Your task to perform on an android device: install app "Instagram" Image 0: 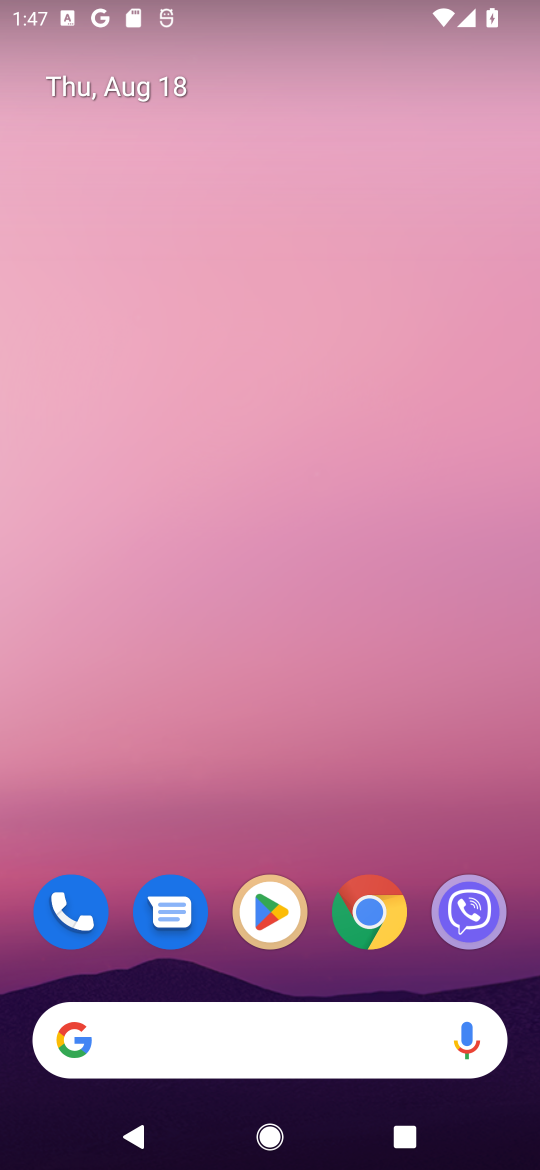
Step 0: click (280, 929)
Your task to perform on an android device: install app "Instagram" Image 1: 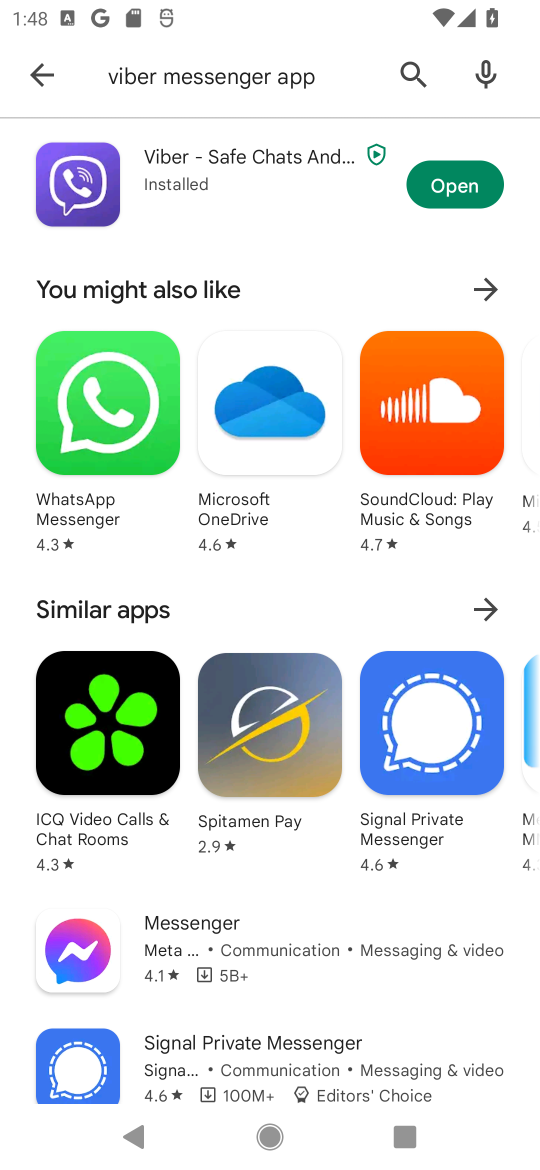
Step 1: click (403, 66)
Your task to perform on an android device: install app "Instagram" Image 2: 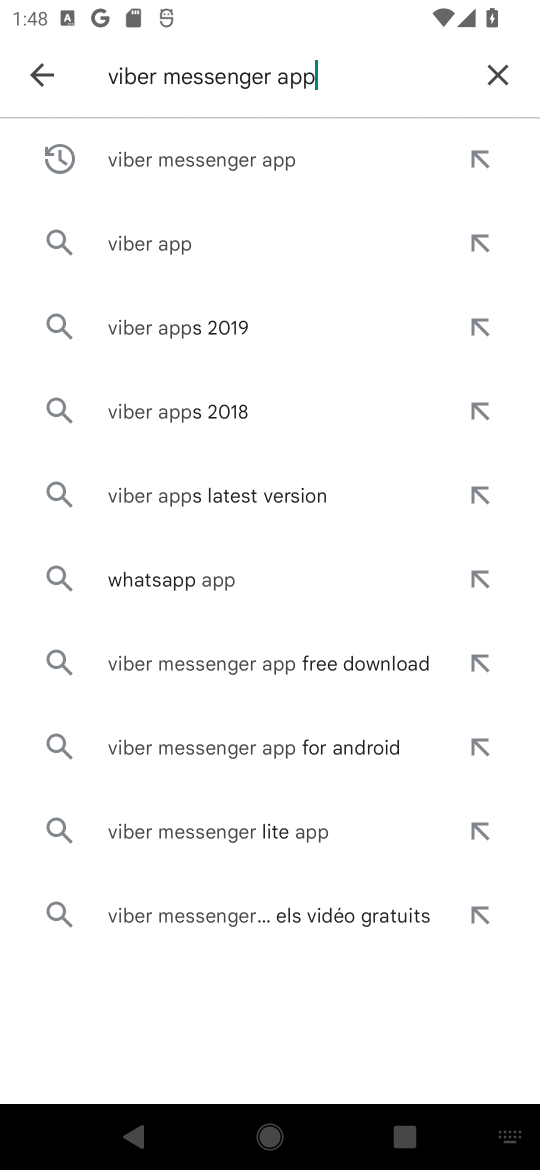
Step 2: click (497, 74)
Your task to perform on an android device: install app "Instagram" Image 3: 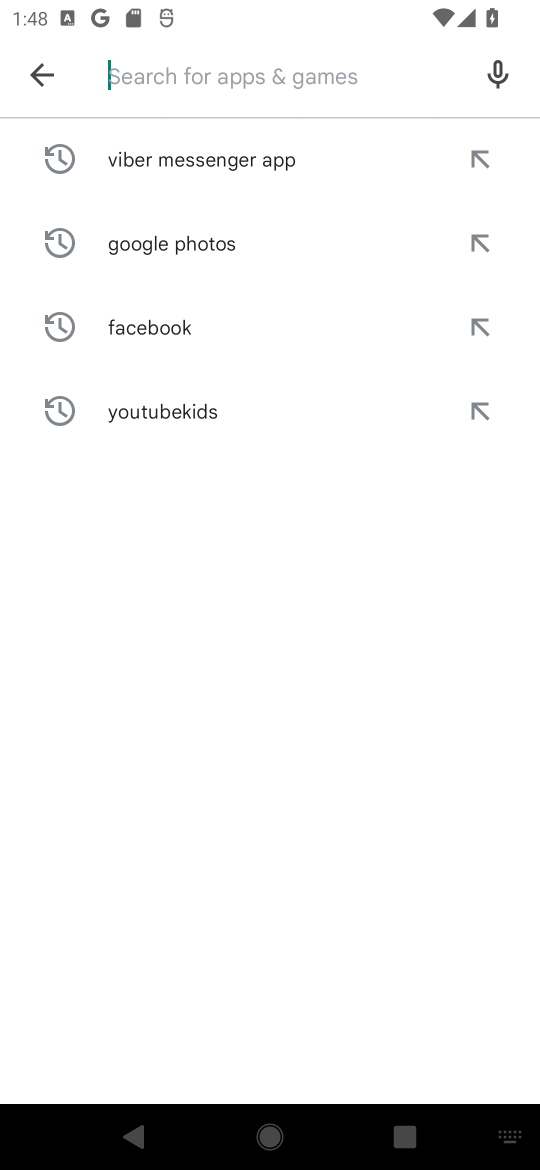
Step 3: click (238, 73)
Your task to perform on an android device: install app "Instagram" Image 4: 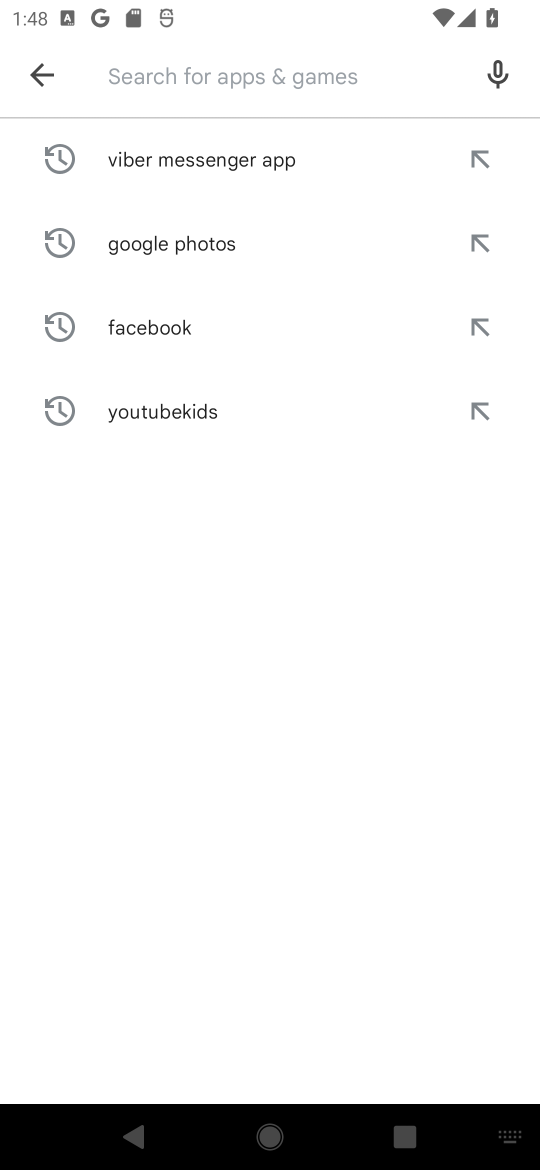
Step 4: type "Instagram"
Your task to perform on an android device: install app "Instagram" Image 5: 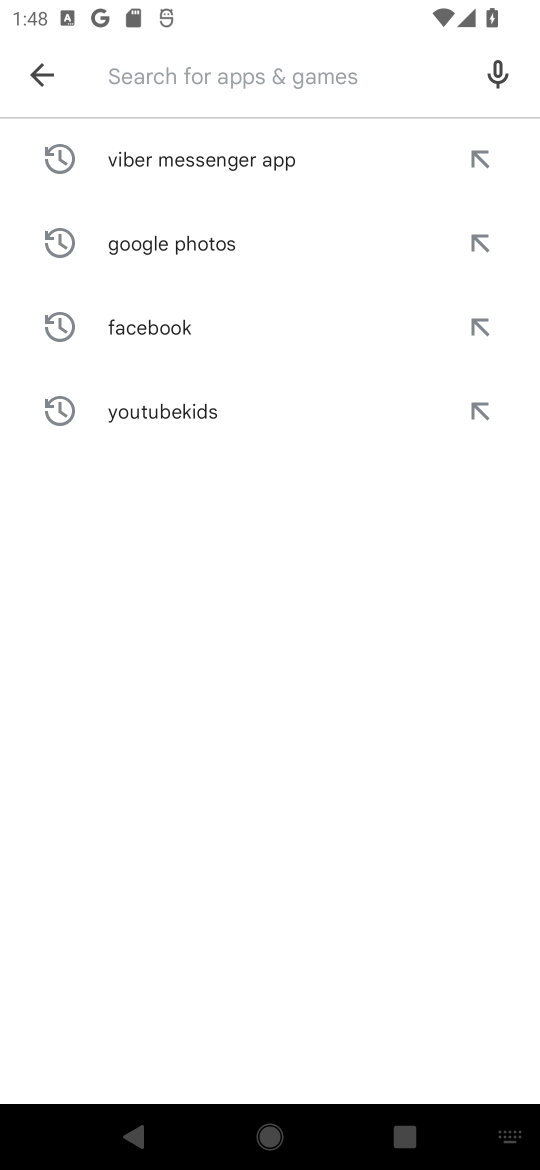
Step 5: click (322, 728)
Your task to perform on an android device: install app "Instagram" Image 6: 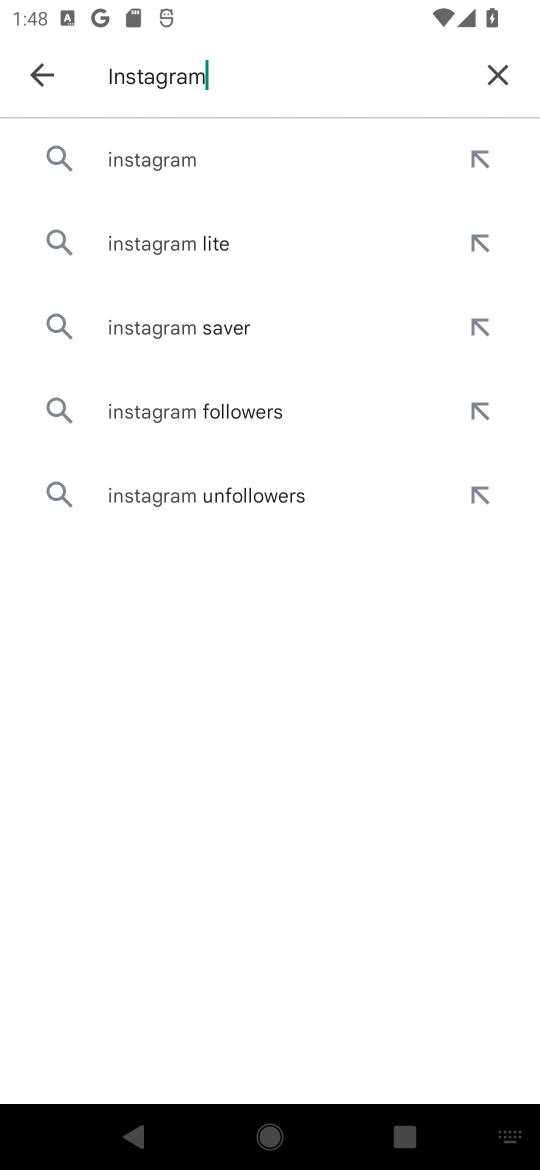
Step 6: click (186, 143)
Your task to perform on an android device: install app "Instagram" Image 7: 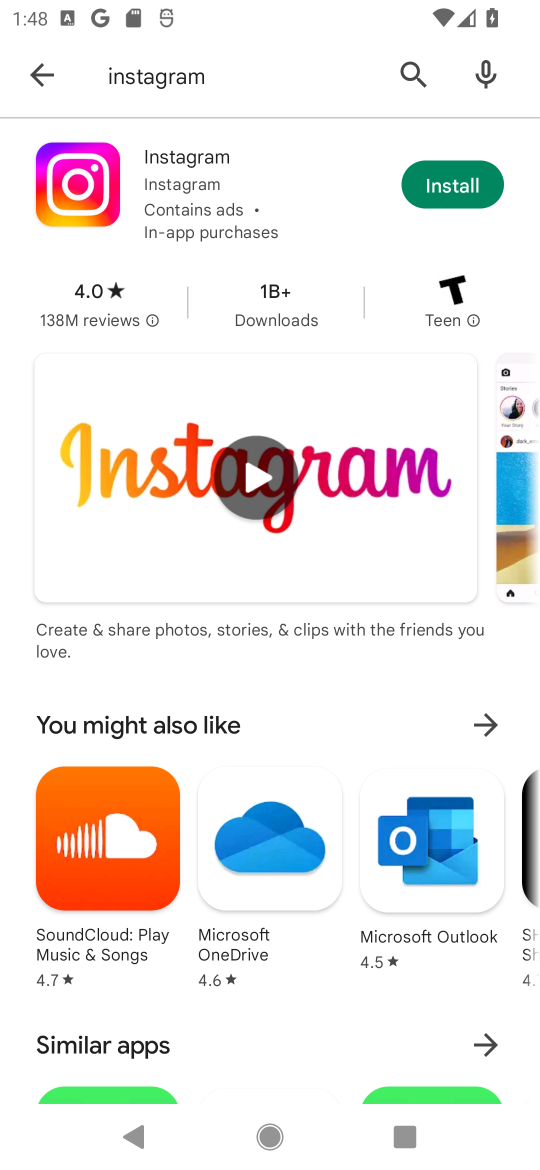
Step 7: click (448, 195)
Your task to perform on an android device: install app "Instagram" Image 8: 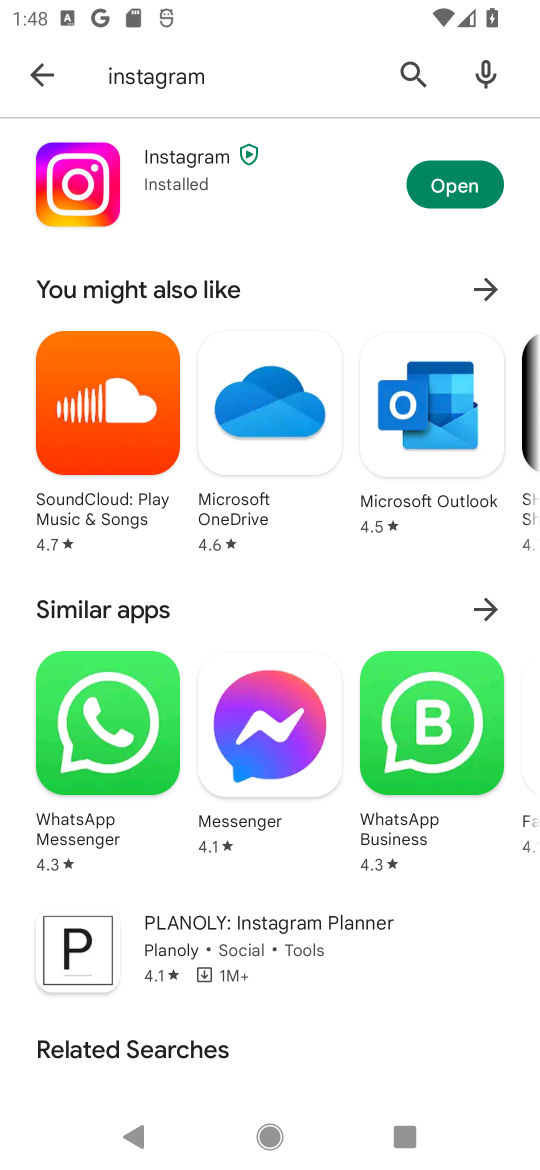
Step 8: task complete